Your task to perform on an android device: Open settings Image 0: 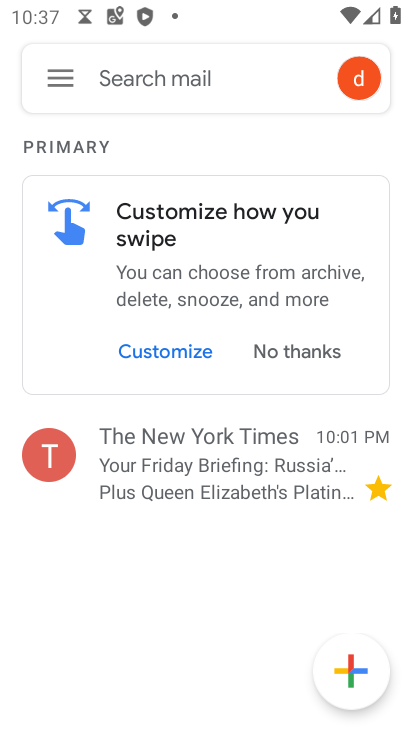
Step 0: press back button
Your task to perform on an android device: Open settings Image 1: 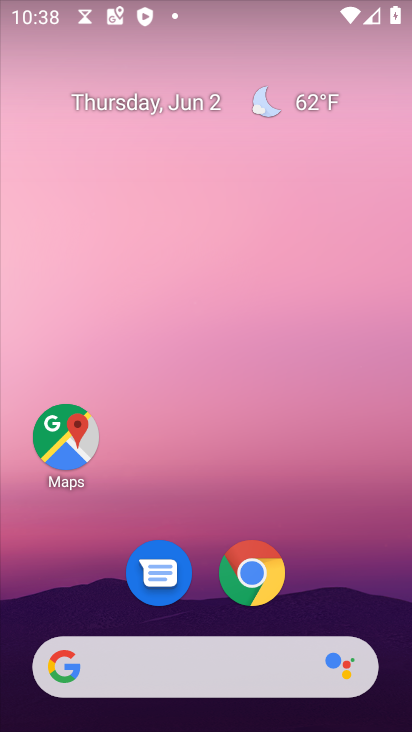
Step 1: drag from (318, 561) to (192, 189)
Your task to perform on an android device: Open settings Image 2: 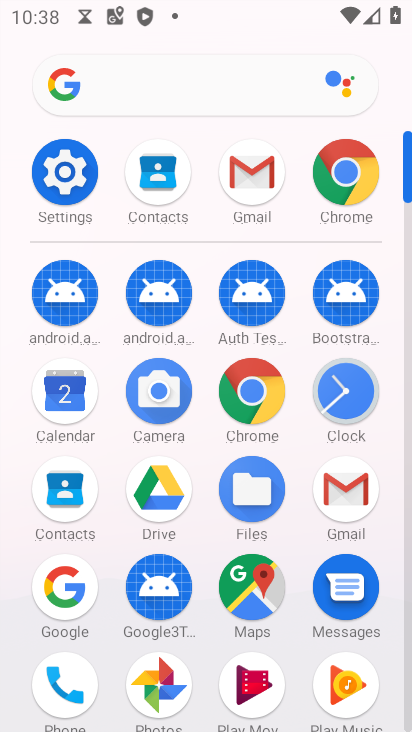
Step 2: click (65, 175)
Your task to perform on an android device: Open settings Image 3: 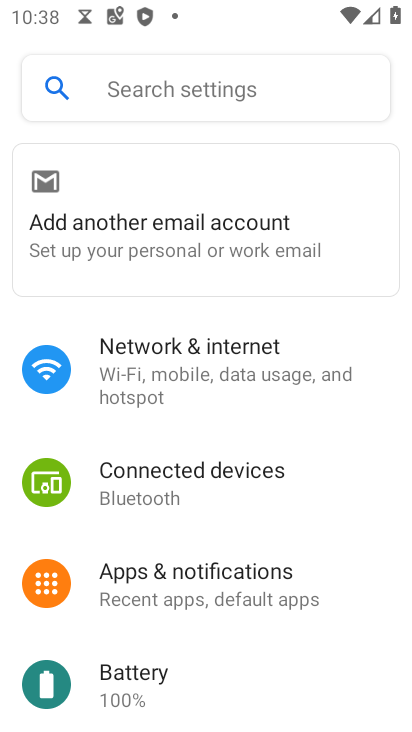
Step 3: task complete